Your task to perform on an android device: turn on sleep mode Image 0: 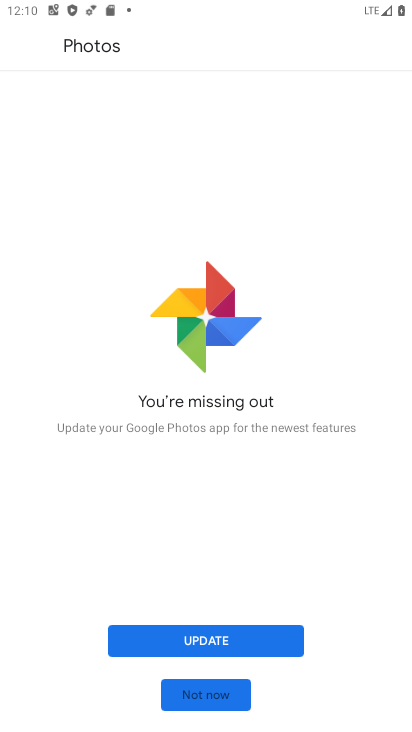
Step 0: press home button
Your task to perform on an android device: turn on sleep mode Image 1: 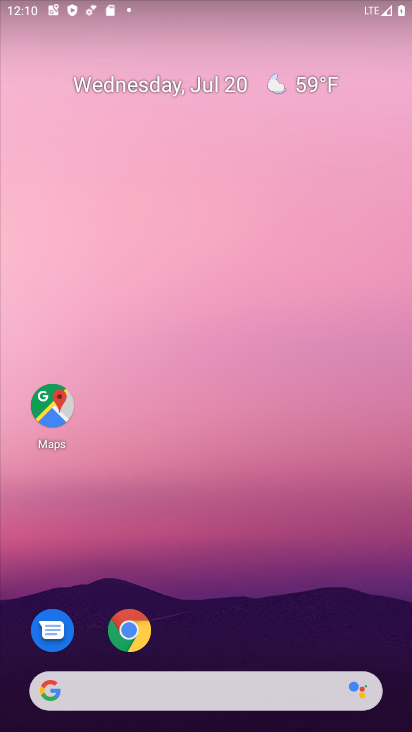
Step 1: drag from (227, 681) to (328, 195)
Your task to perform on an android device: turn on sleep mode Image 2: 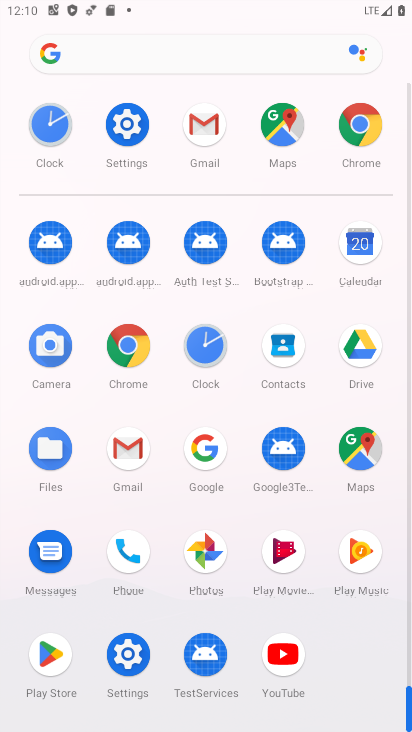
Step 2: click (126, 126)
Your task to perform on an android device: turn on sleep mode Image 3: 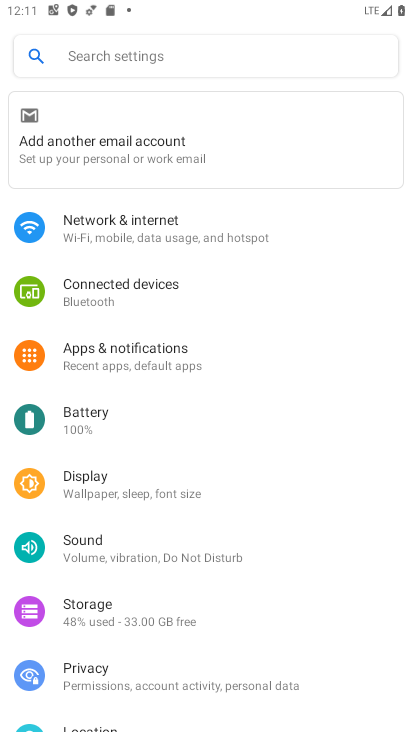
Step 3: click (141, 488)
Your task to perform on an android device: turn on sleep mode Image 4: 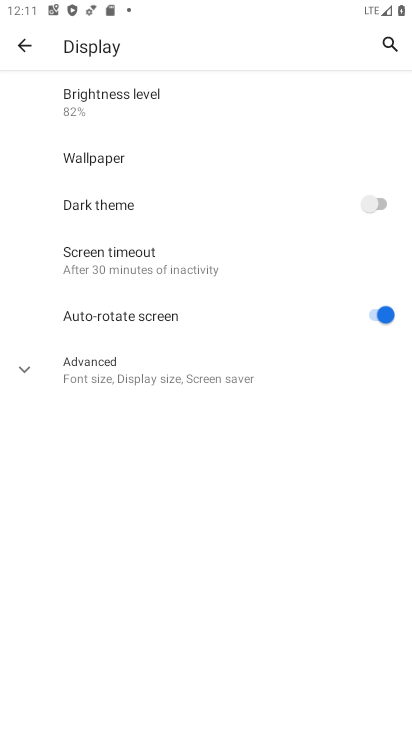
Step 4: click (127, 369)
Your task to perform on an android device: turn on sleep mode Image 5: 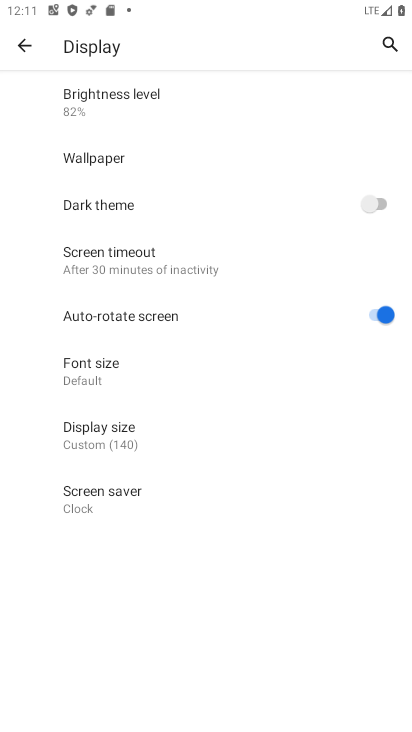
Step 5: task complete